Your task to perform on an android device: Show me productivity apps on the Play Store Image 0: 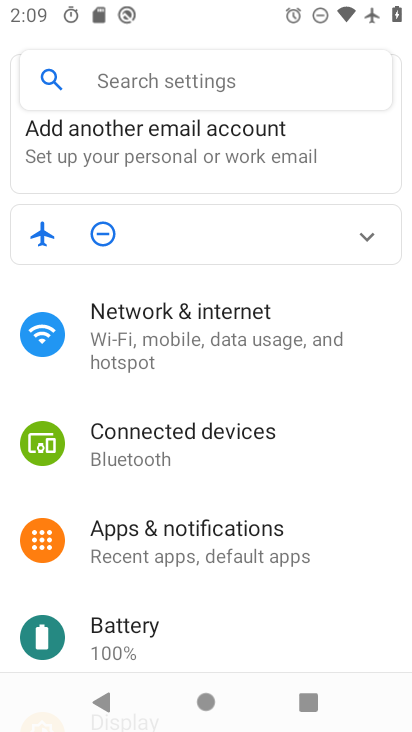
Step 0: press home button
Your task to perform on an android device: Show me productivity apps on the Play Store Image 1: 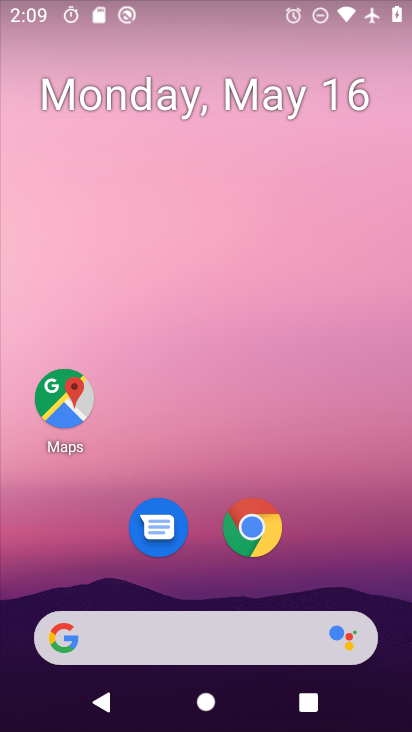
Step 1: drag from (207, 587) to (293, 242)
Your task to perform on an android device: Show me productivity apps on the Play Store Image 2: 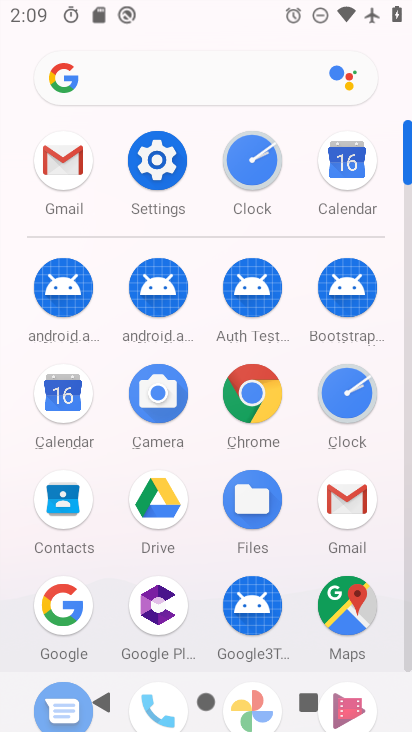
Step 2: drag from (177, 663) to (335, 164)
Your task to perform on an android device: Show me productivity apps on the Play Store Image 3: 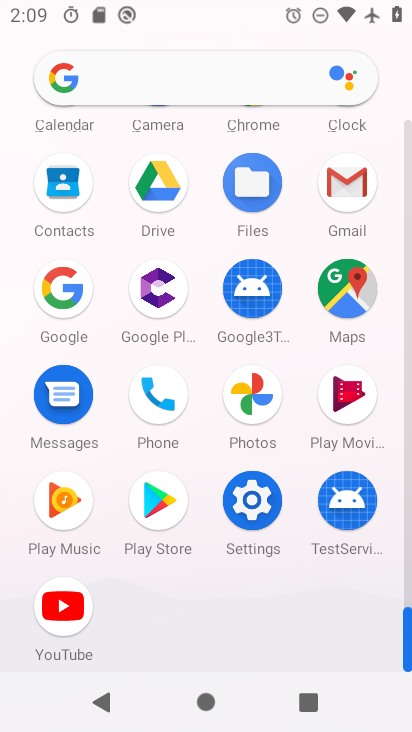
Step 3: click (160, 523)
Your task to perform on an android device: Show me productivity apps on the Play Store Image 4: 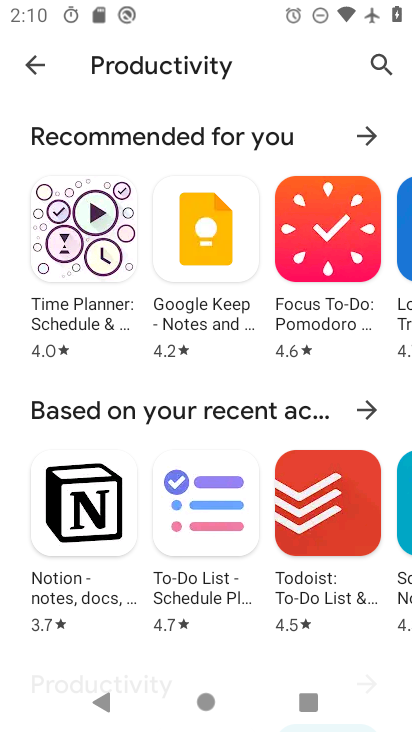
Step 4: task complete